Your task to perform on an android device: Open settings Image 0: 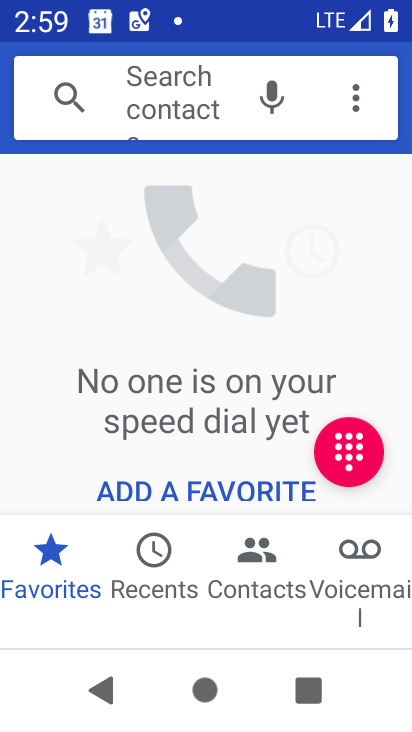
Step 0: press home button
Your task to perform on an android device: Open settings Image 1: 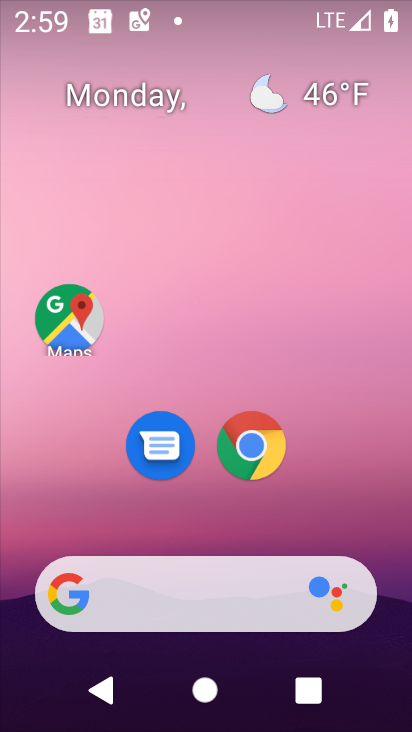
Step 1: drag from (286, 507) to (299, 126)
Your task to perform on an android device: Open settings Image 2: 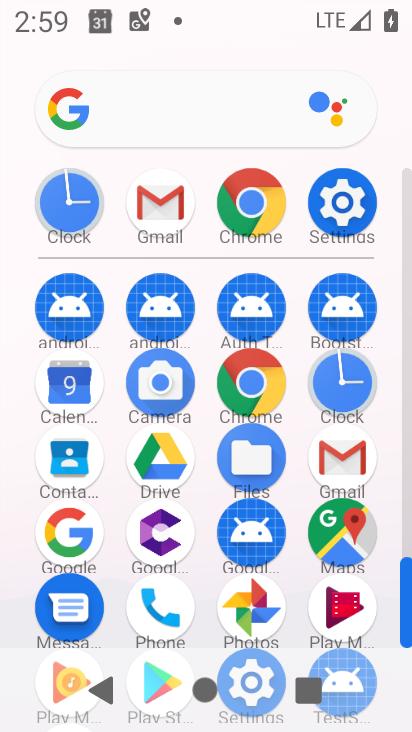
Step 2: click (335, 216)
Your task to perform on an android device: Open settings Image 3: 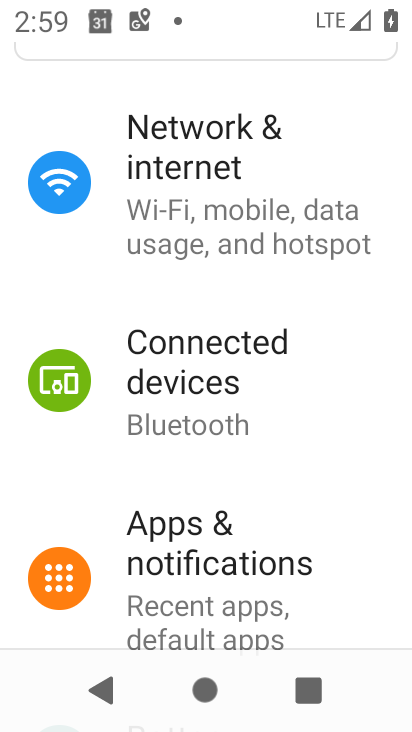
Step 3: task complete